Your task to perform on an android device: Toggle the flashlight Image 0: 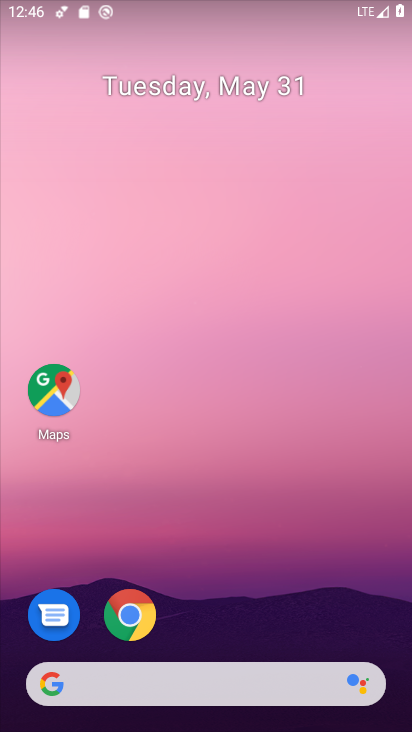
Step 0: drag from (188, 611) to (227, 229)
Your task to perform on an android device: Toggle the flashlight Image 1: 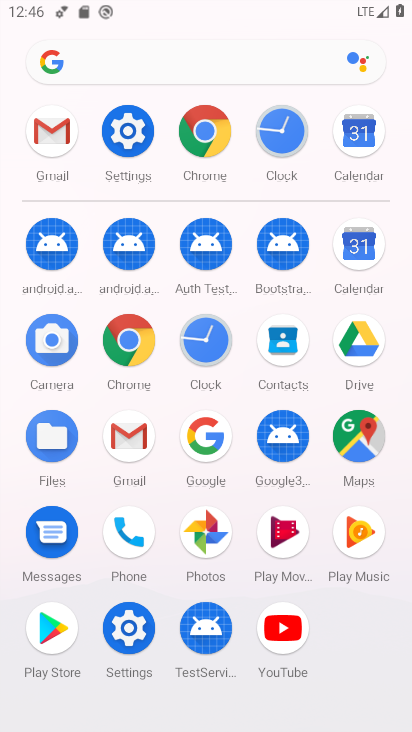
Step 1: click (127, 155)
Your task to perform on an android device: Toggle the flashlight Image 2: 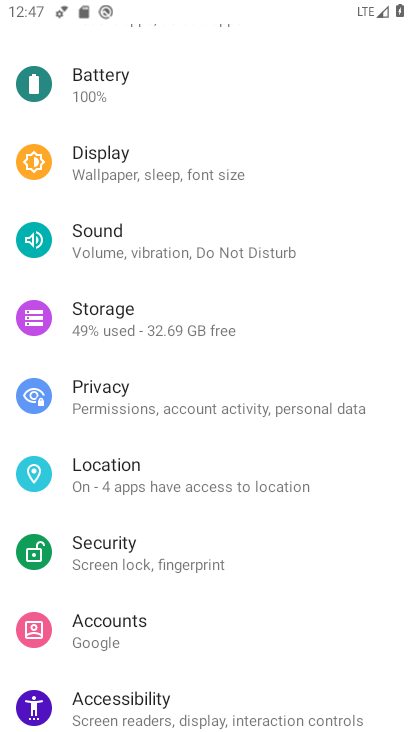
Step 2: drag from (191, 167) to (159, 509)
Your task to perform on an android device: Toggle the flashlight Image 3: 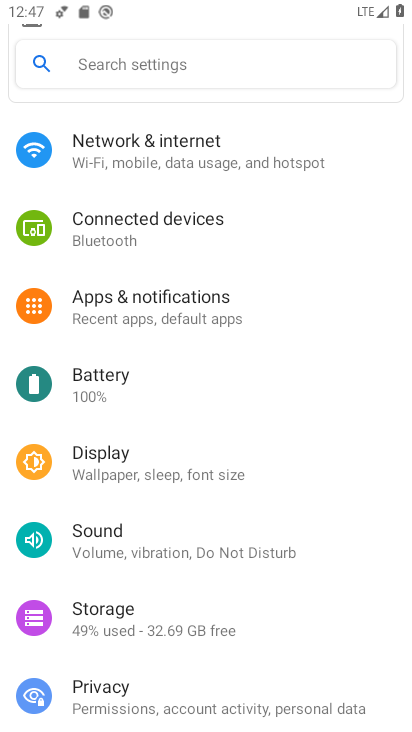
Step 3: click (219, 59)
Your task to perform on an android device: Toggle the flashlight Image 4: 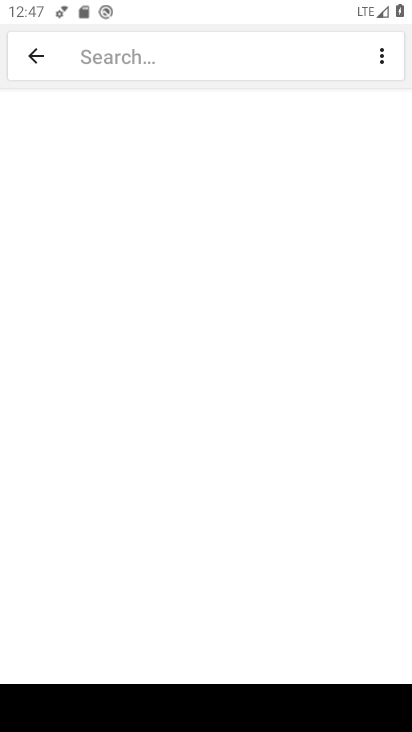
Step 4: type "flashlight"
Your task to perform on an android device: Toggle the flashlight Image 5: 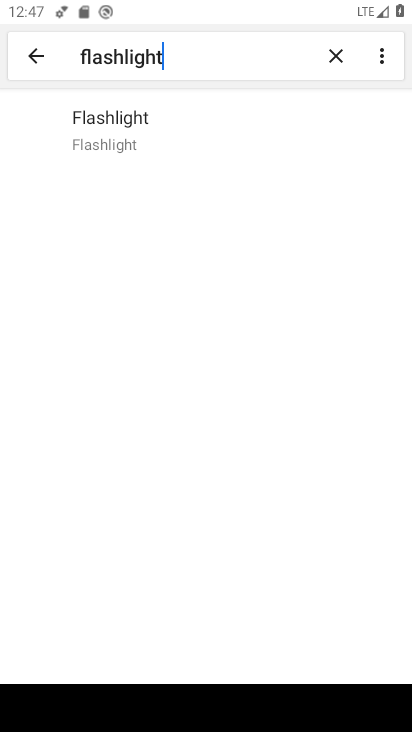
Step 5: click (158, 153)
Your task to perform on an android device: Toggle the flashlight Image 6: 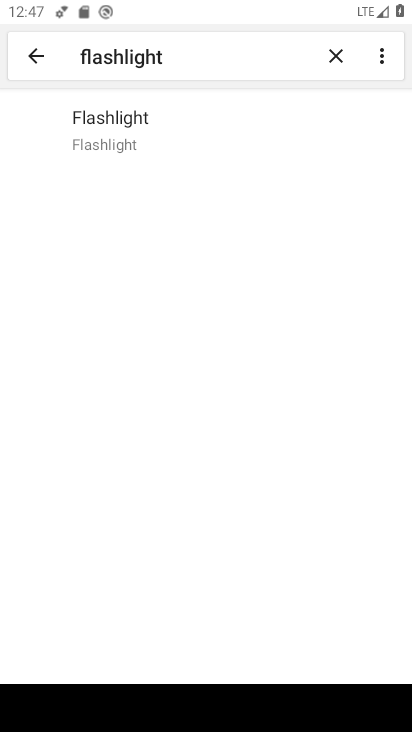
Step 6: click (149, 142)
Your task to perform on an android device: Toggle the flashlight Image 7: 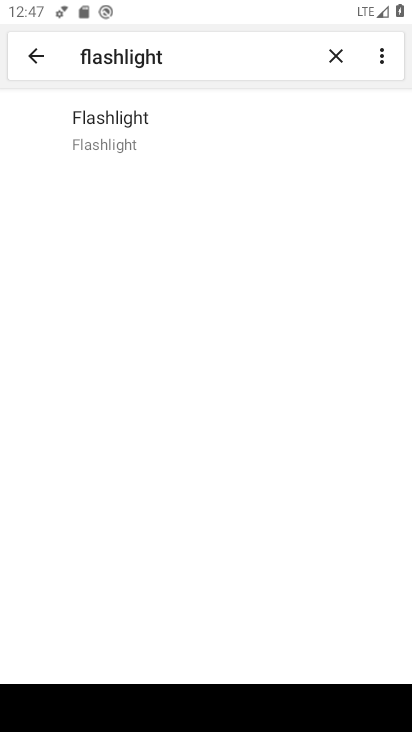
Step 7: task complete